Your task to perform on an android device: turn off picture-in-picture Image 0: 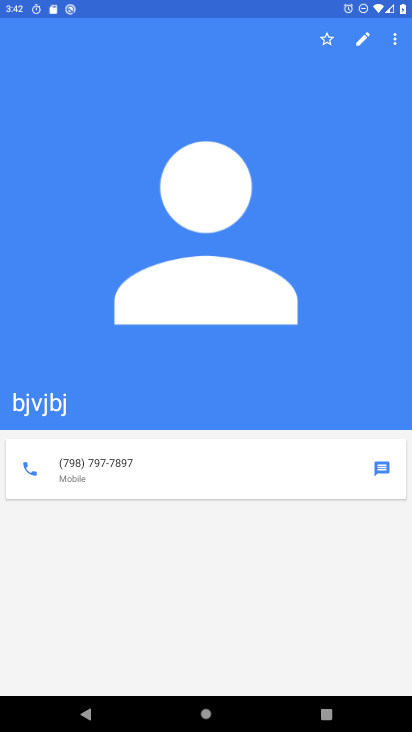
Step 0: press home button
Your task to perform on an android device: turn off picture-in-picture Image 1: 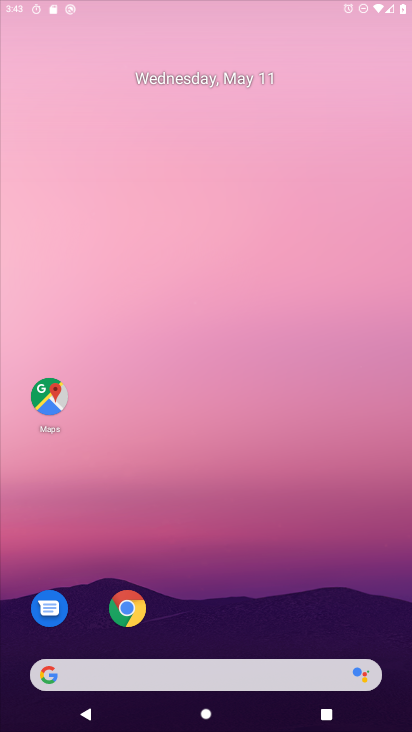
Step 1: drag from (286, 527) to (293, 4)
Your task to perform on an android device: turn off picture-in-picture Image 2: 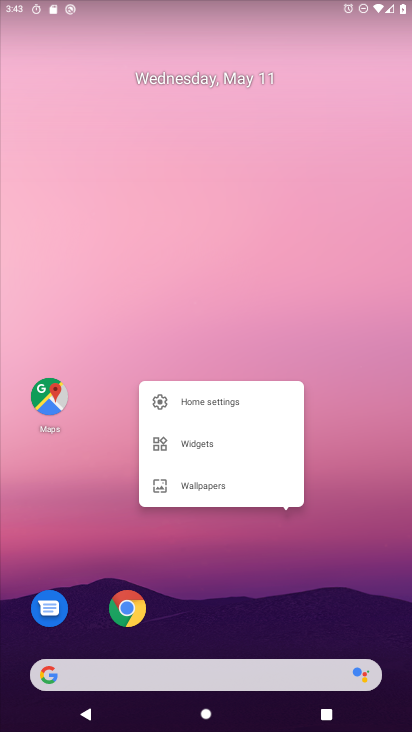
Step 2: click (226, 246)
Your task to perform on an android device: turn off picture-in-picture Image 3: 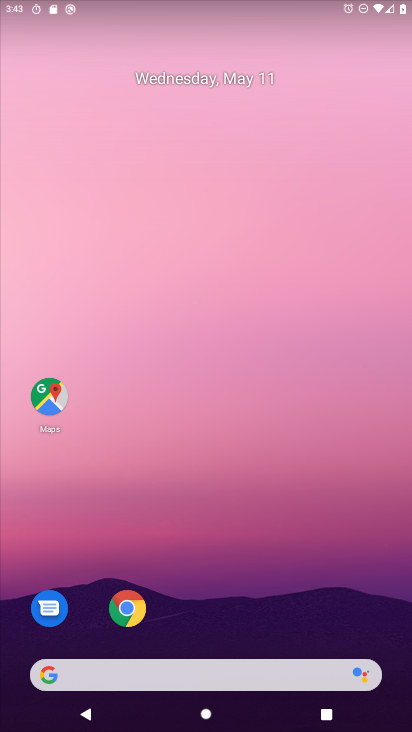
Step 3: drag from (252, 597) to (289, 13)
Your task to perform on an android device: turn off picture-in-picture Image 4: 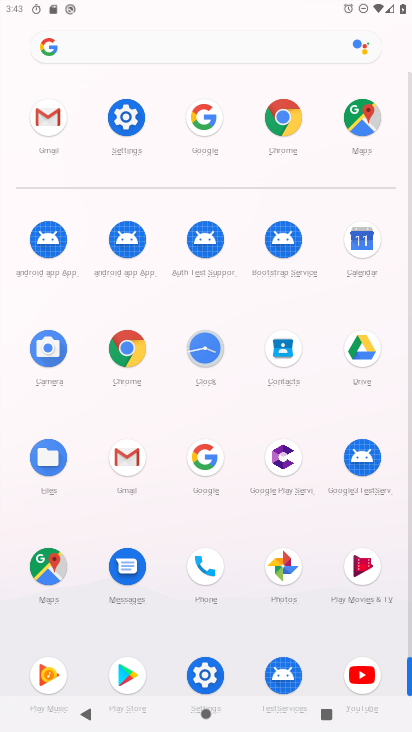
Step 4: click (119, 123)
Your task to perform on an android device: turn off picture-in-picture Image 5: 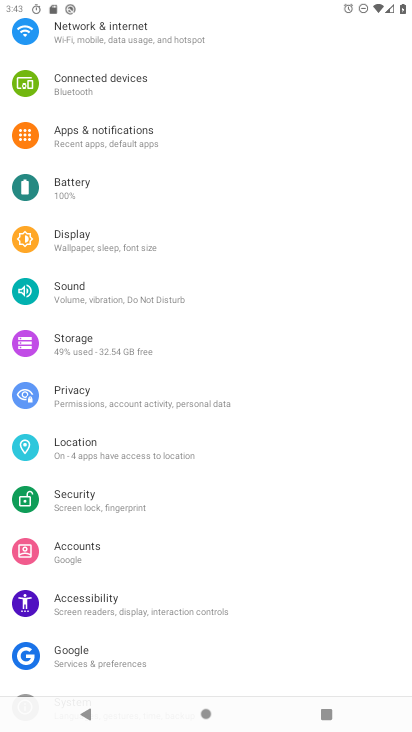
Step 5: drag from (159, 254) to (183, 547)
Your task to perform on an android device: turn off picture-in-picture Image 6: 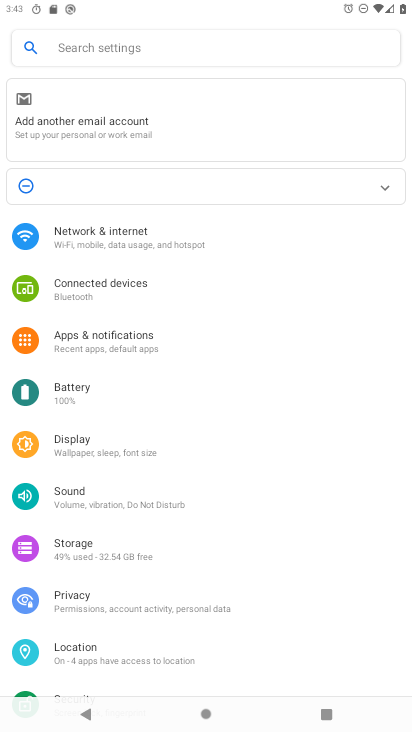
Step 6: click (133, 357)
Your task to perform on an android device: turn off picture-in-picture Image 7: 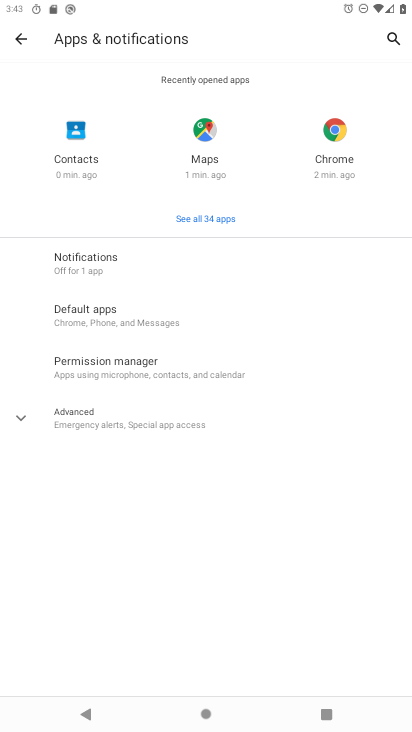
Step 7: click (117, 260)
Your task to perform on an android device: turn off picture-in-picture Image 8: 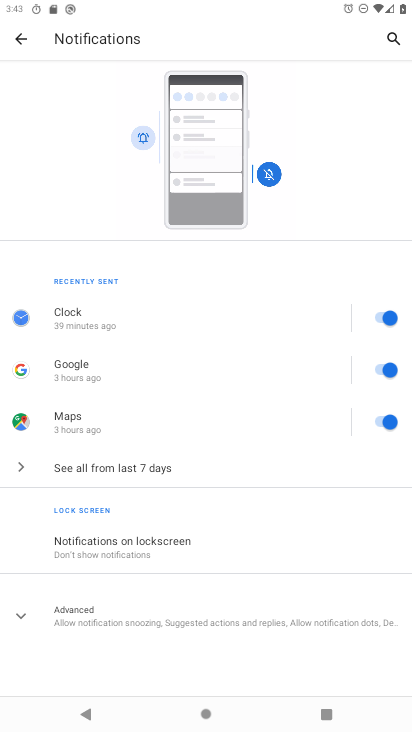
Step 8: click (28, 37)
Your task to perform on an android device: turn off picture-in-picture Image 9: 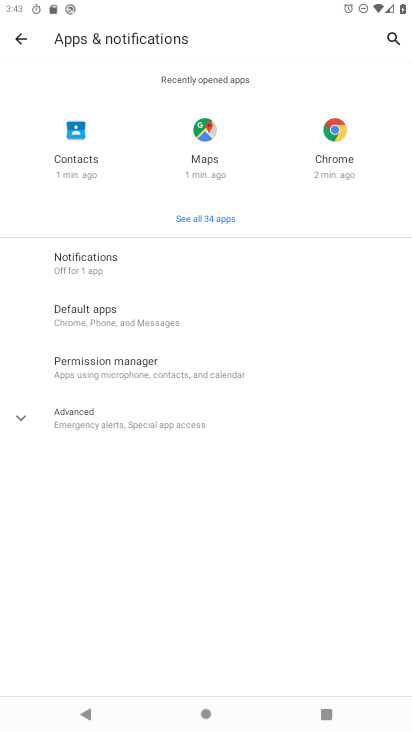
Step 9: click (266, 409)
Your task to perform on an android device: turn off picture-in-picture Image 10: 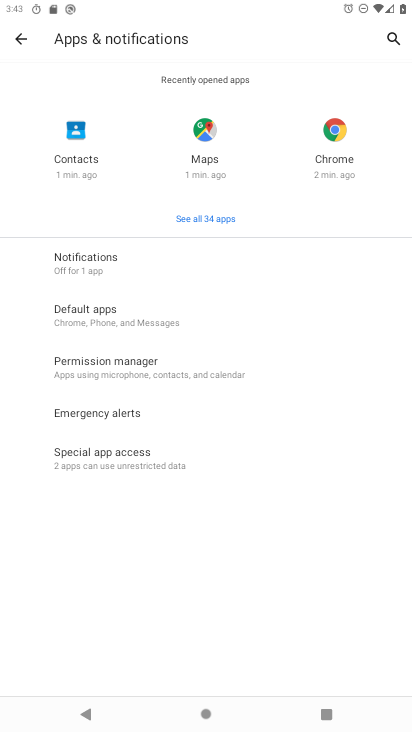
Step 10: click (286, 457)
Your task to perform on an android device: turn off picture-in-picture Image 11: 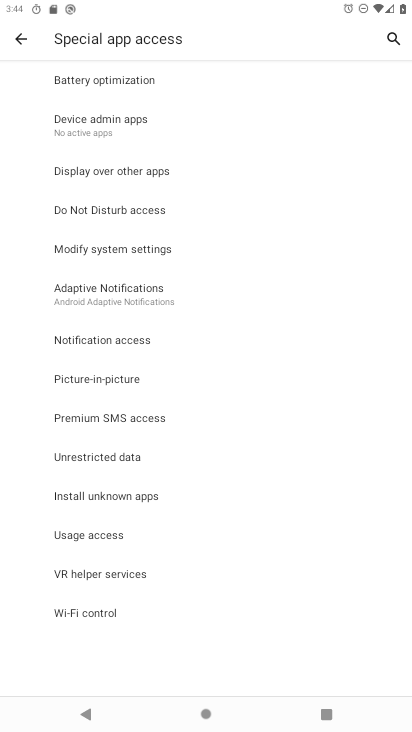
Step 11: click (153, 389)
Your task to perform on an android device: turn off picture-in-picture Image 12: 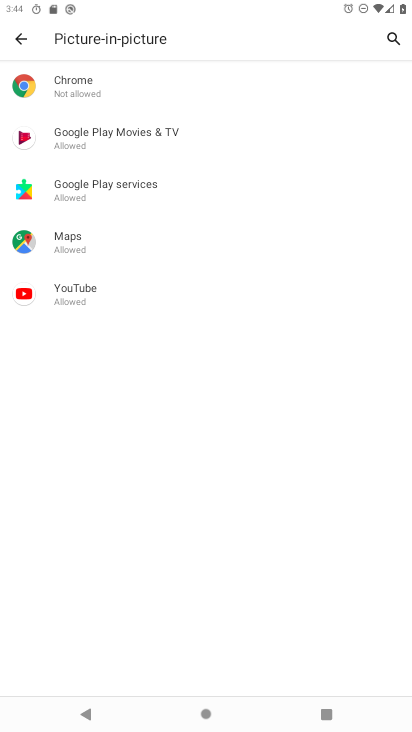
Step 12: click (235, 128)
Your task to perform on an android device: turn off picture-in-picture Image 13: 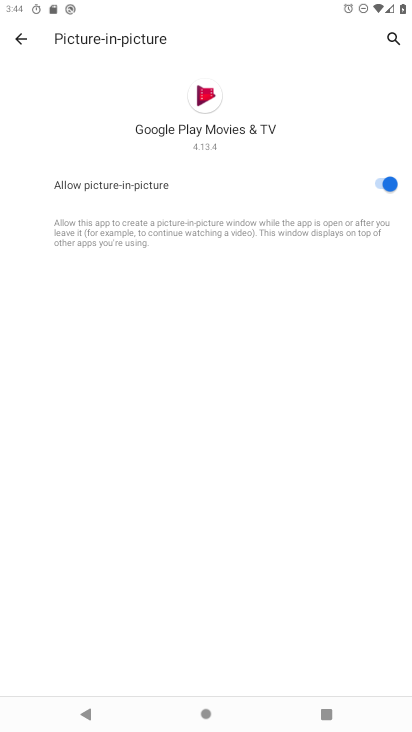
Step 13: click (376, 191)
Your task to perform on an android device: turn off picture-in-picture Image 14: 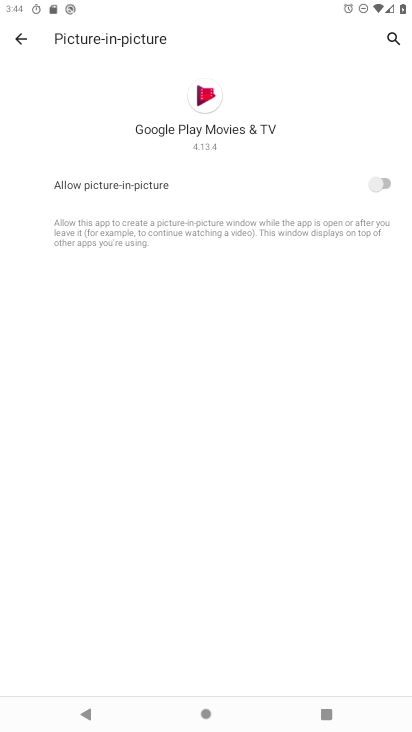
Step 14: task complete